Your task to perform on an android device: open a new tab in the chrome app Image 0: 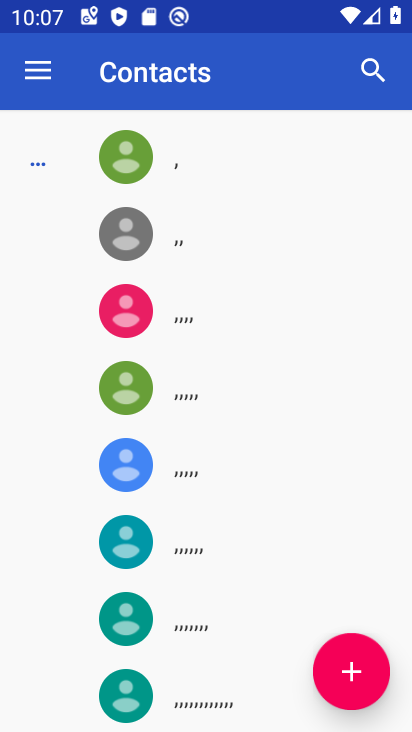
Step 0: press home button
Your task to perform on an android device: open a new tab in the chrome app Image 1: 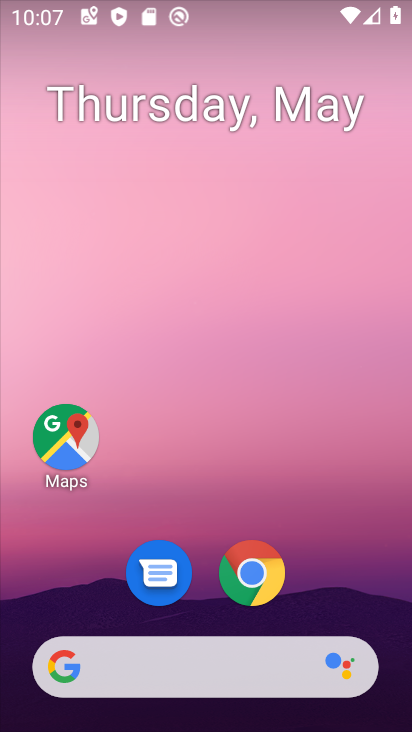
Step 1: click (248, 583)
Your task to perform on an android device: open a new tab in the chrome app Image 2: 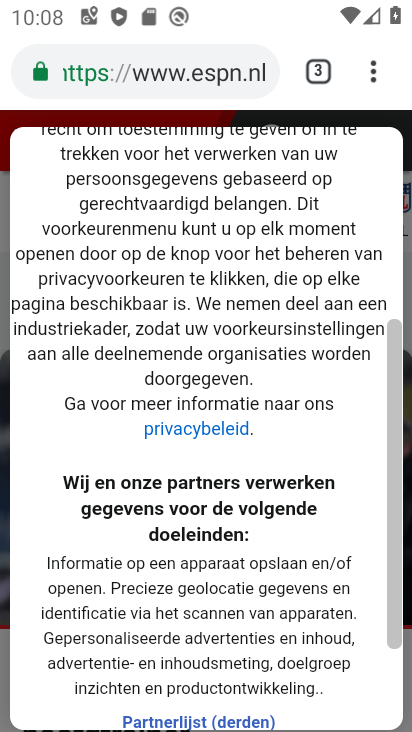
Step 2: click (370, 71)
Your task to perform on an android device: open a new tab in the chrome app Image 3: 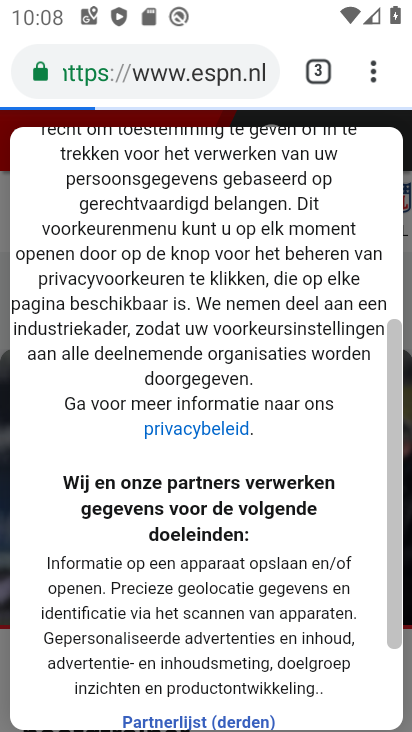
Step 3: click (171, 138)
Your task to perform on an android device: open a new tab in the chrome app Image 4: 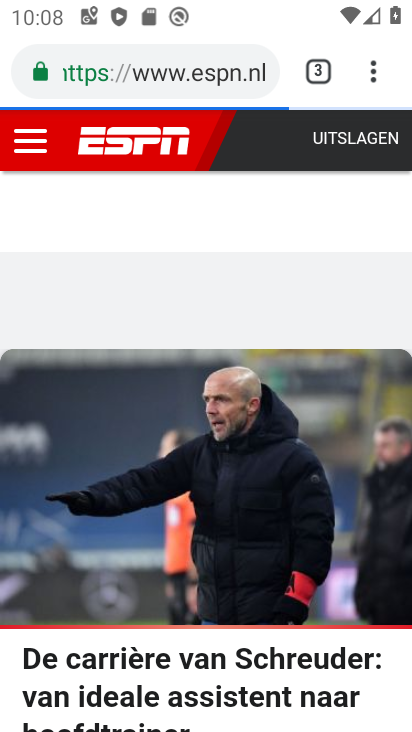
Step 4: click (328, 73)
Your task to perform on an android device: open a new tab in the chrome app Image 5: 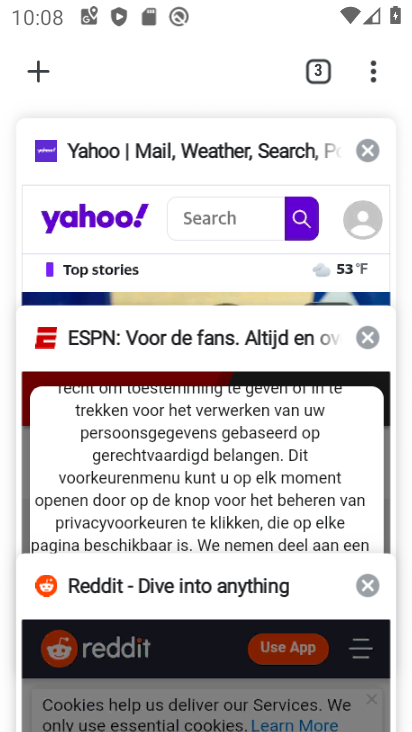
Step 5: click (46, 71)
Your task to perform on an android device: open a new tab in the chrome app Image 6: 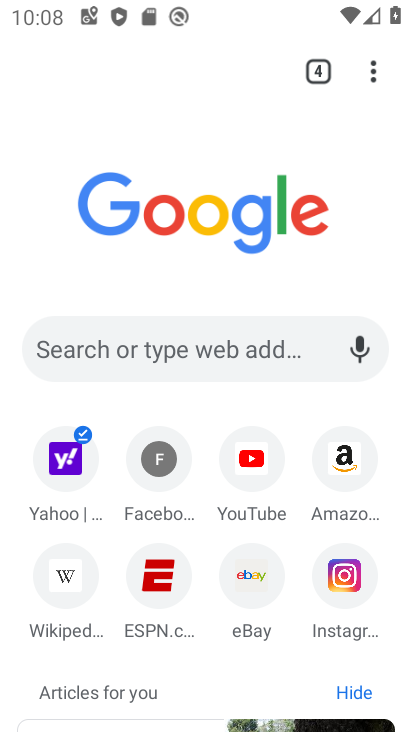
Step 6: task complete